Your task to perform on an android device: Play the last video I watched on Youtube Image 0: 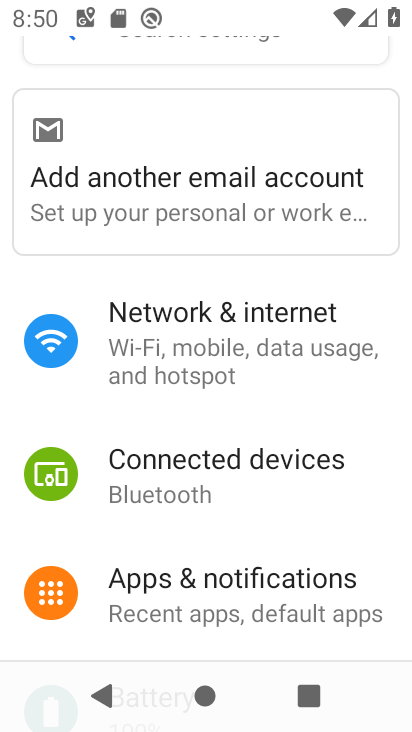
Step 0: press home button
Your task to perform on an android device: Play the last video I watched on Youtube Image 1: 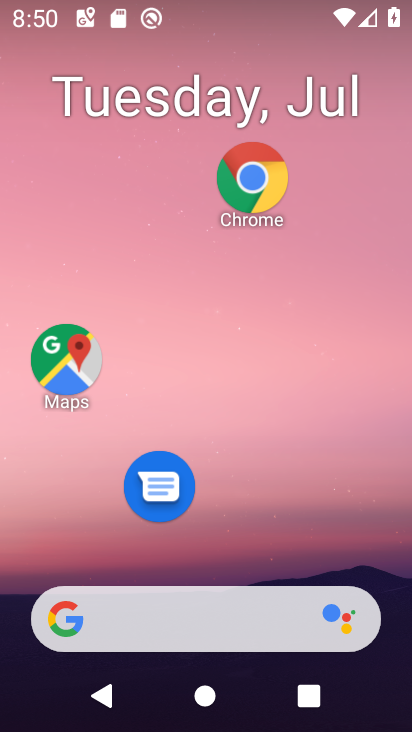
Step 1: drag from (211, 495) to (207, 124)
Your task to perform on an android device: Play the last video I watched on Youtube Image 2: 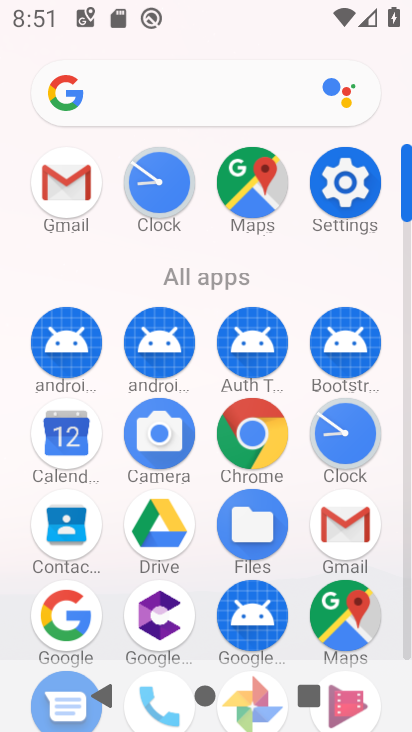
Step 2: drag from (264, 511) to (309, 89)
Your task to perform on an android device: Play the last video I watched on Youtube Image 3: 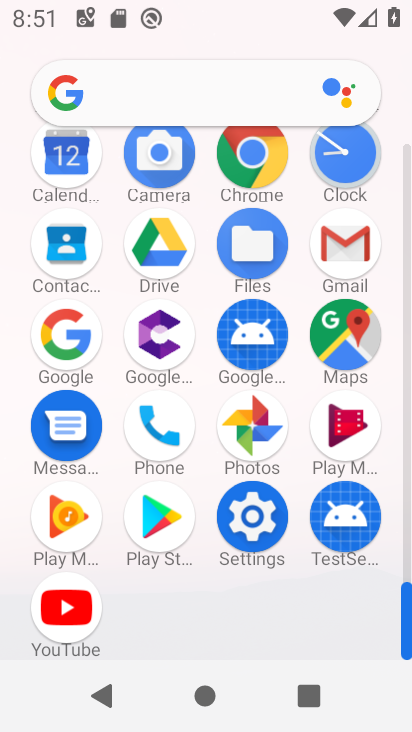
Step 3: click (72, 603)
Your task to perform on an android device: Play the last video I watched on Youtube Image 4: 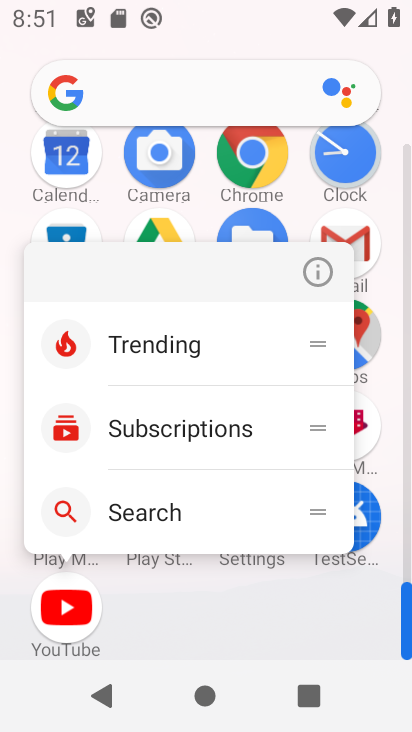
Step 4: click (76, 622)
Your task to perform on an android device: Play the last video I watched on Youtube Image 5: 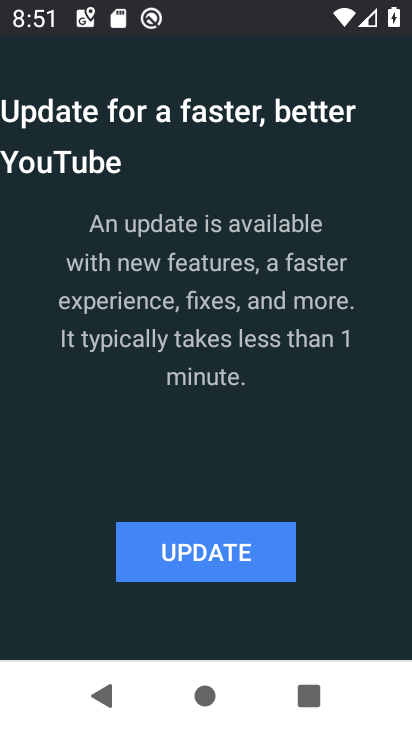
Step 5: task complete